Your task to perform on an android device: delete the emails in spam in the gmail app Image 0: 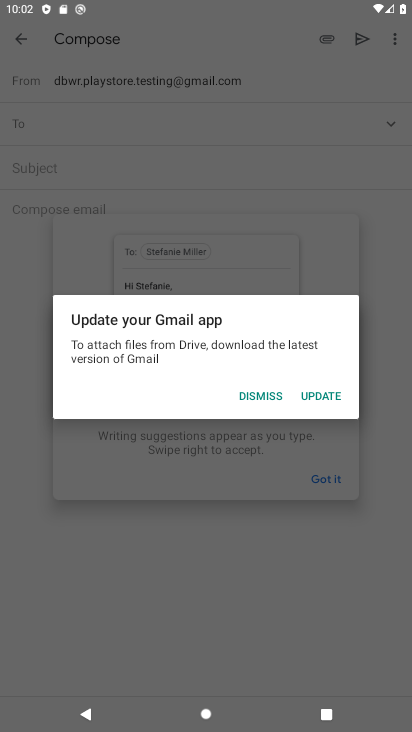
Step 0: press home button
Your task to perform on an android device: delete the emails in spam in the gmail app Image 1: 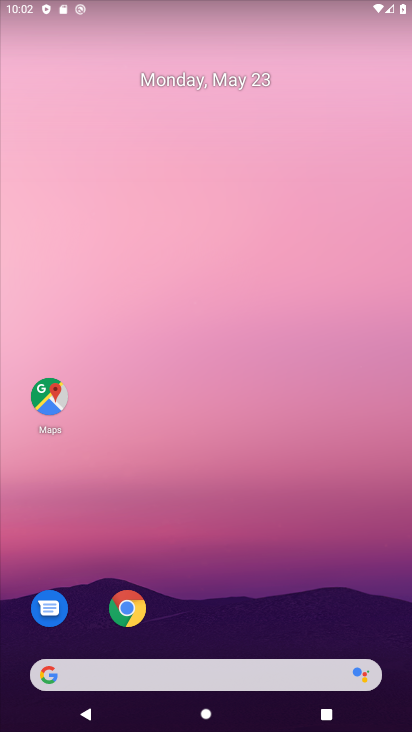
Step 1: drag from (217, 644) to (336, 97)
Your task to perform on an android device: delete the emails in spam in the gmail app Image 2: 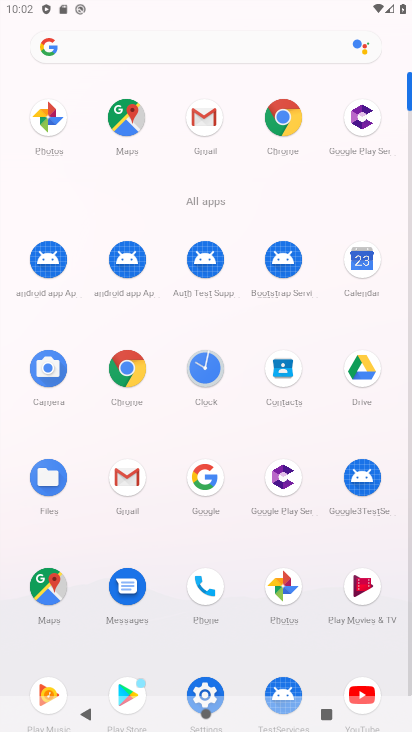
Step 2: click (142, 479)
Your task to perform on an android device: delete the emails in spam in the gmail app Image 3: 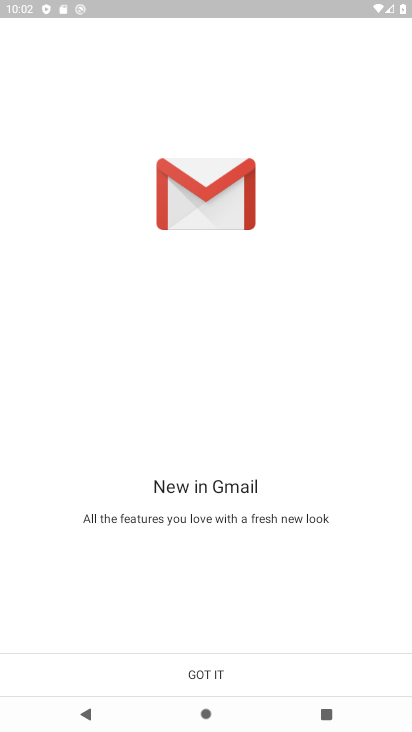
Step 3: click (215, 668)
Your task to perform on an android device: delete the emails in spam in the gmail app Image 4: 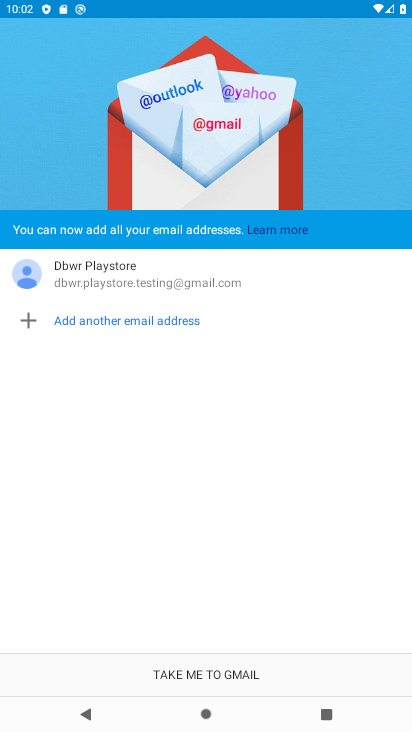
Step 4: click (232, 677)
Your task to perform on an android device: delete the emails in spam in the gmail app Image 5: 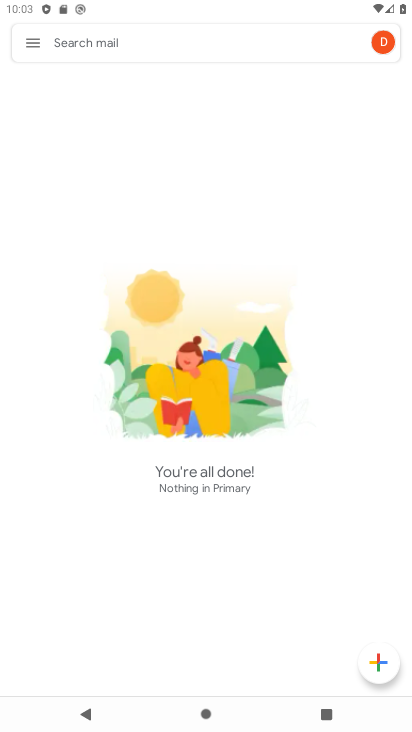
Step 5: click (21, 46)
Your task to perform on an android device: delete the emails in spam in the gmail app Image 6: 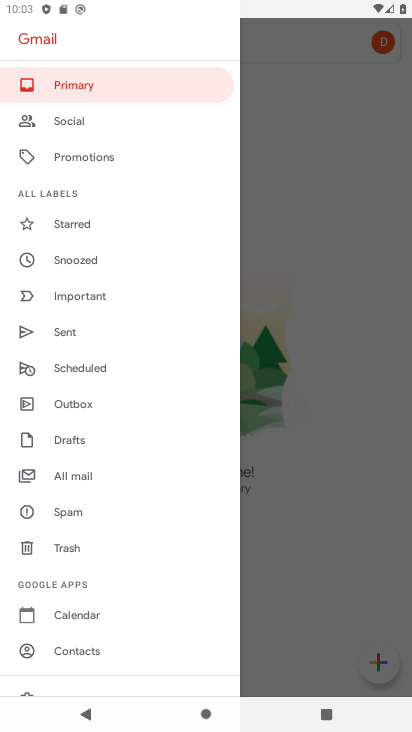
Step 6: click (123, 510)
Your task to perform on an android device: delete the emails in spam in the gmail app Image 7: 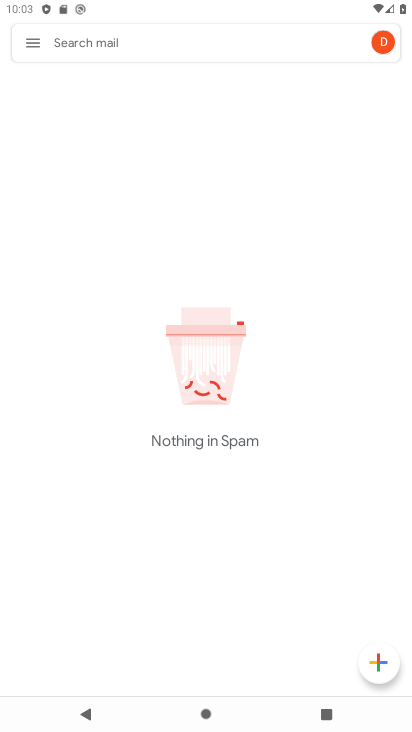
Step 7: task complete